Your task to perform on an android device: turn on data saver in the chrome app Image 0: 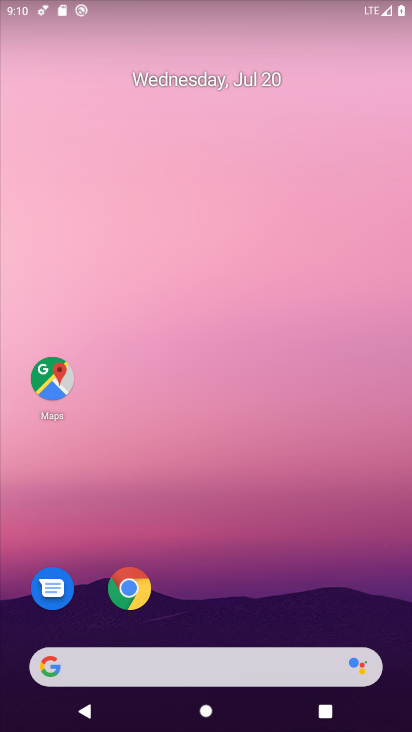
Step 0: press home button
Your task to perform on an android device: turn on data saver in the chrome app Image 1: 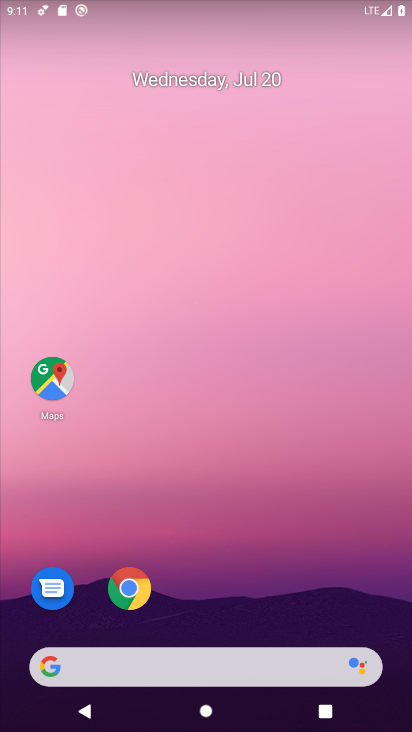
Step 1: click (127, 582)
Your task to perform on an android device: turn on data saver in the chrome app Image 2: 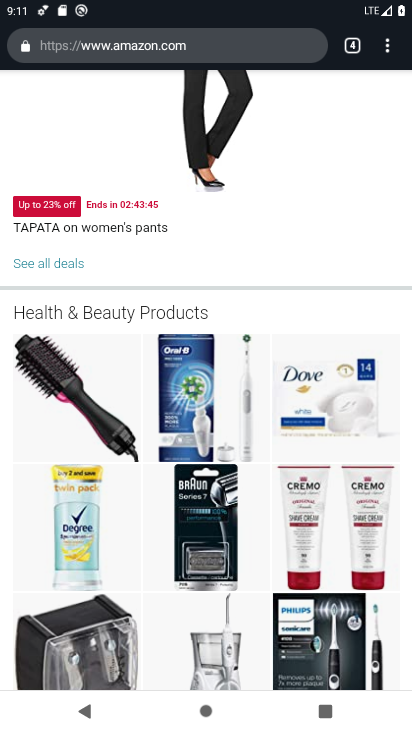
Step 2: click (388, 45)
Your task to perform on an android device: turn on data saver in the chrome app Image 3: 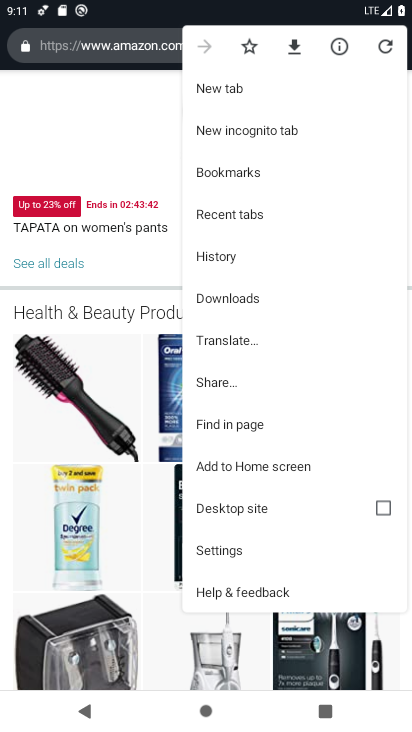
Step 3: click (249, 547)
Your task to perform on an android device: turn on data saver in the chrome app Image 4: 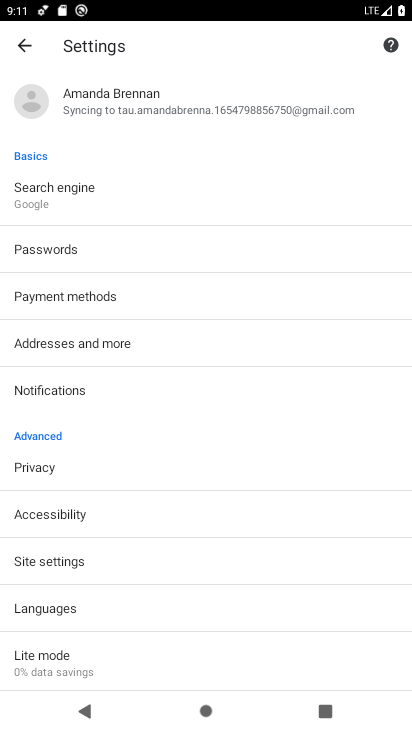
Step 4: click (97, 658)
Your task to perform on an android device: turn on data saver in the chrome app Image 5: 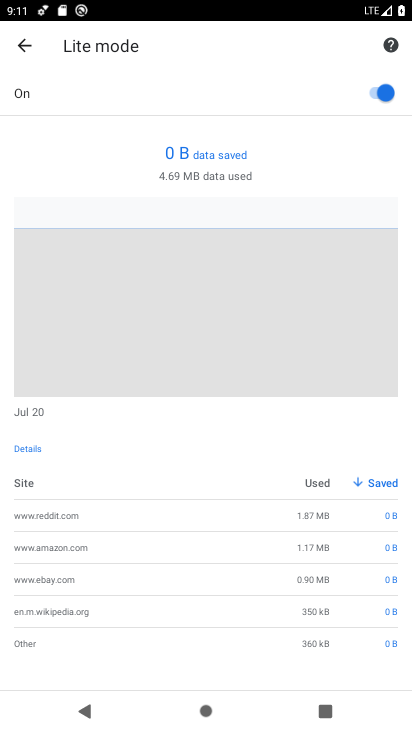
Step 5: task complete